Your task to perform on an android device: Go to notification settings Image 0: 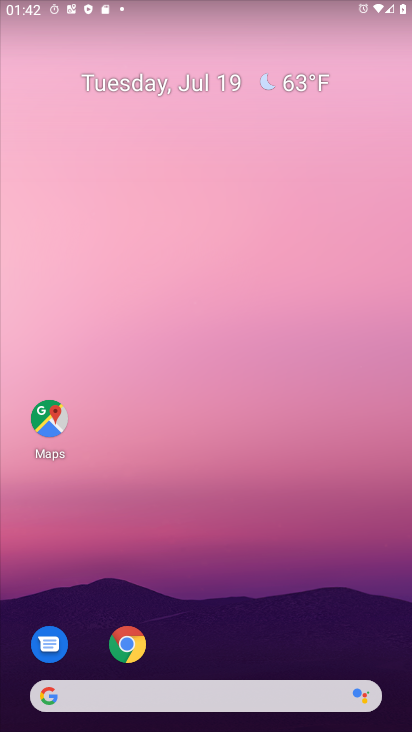
Step 0: drag from (213, 728) to (213, 357)
Your task to perform on an android device: Go to notification settings Image 1: 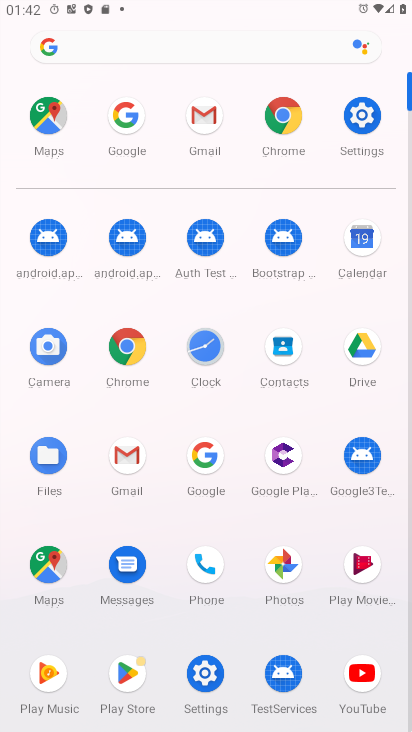
Step 1: click (365, 113)
Your task to perform on an android device: Go to notification settings Image 2: 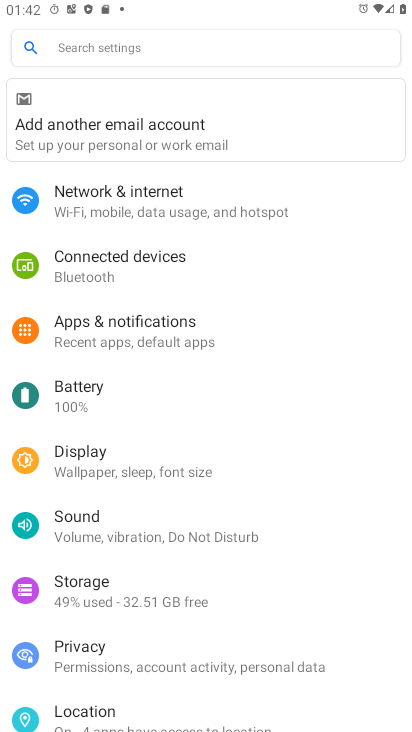
Step 2: click (129, 328)
Your task to perform on an android device: Go to notification settings Image 3: 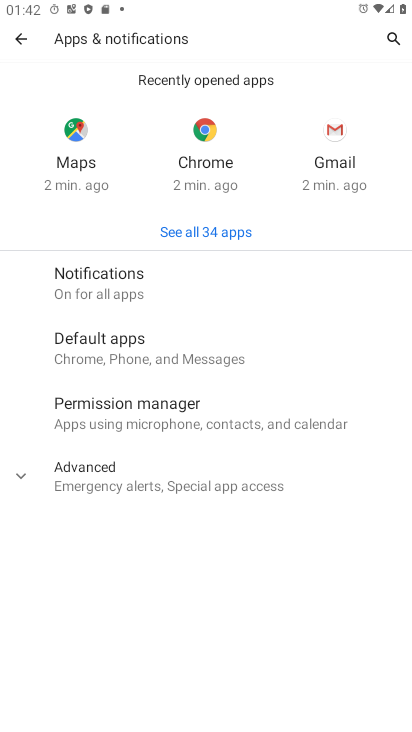
Step 3: click (97, 291)
Your task to perform on an android device: Go to notification settings Image 4: 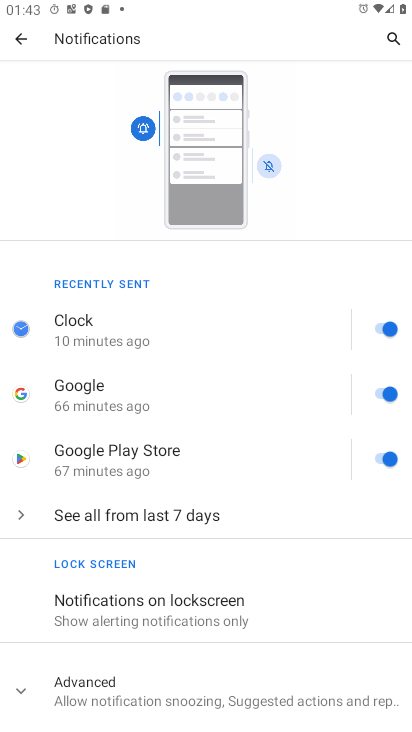
Step 4: task complete